Your task to perform on an android device: turn on improve location accuracy Image 0: 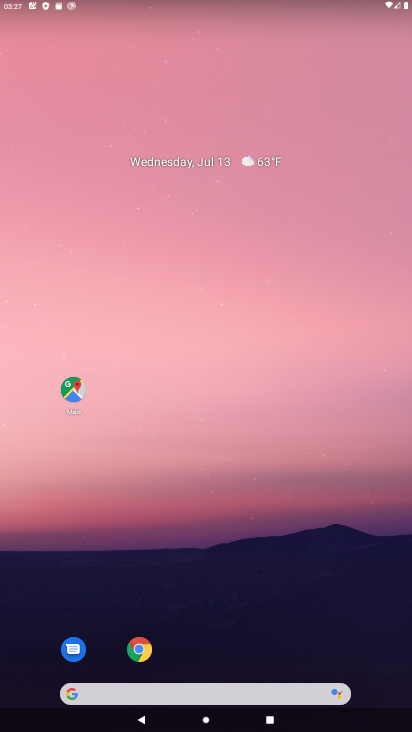
Step 0: drag from (267, 596) to (262, 54)
Your task to perform on an android device: turn on improve location accuracy Image 1: 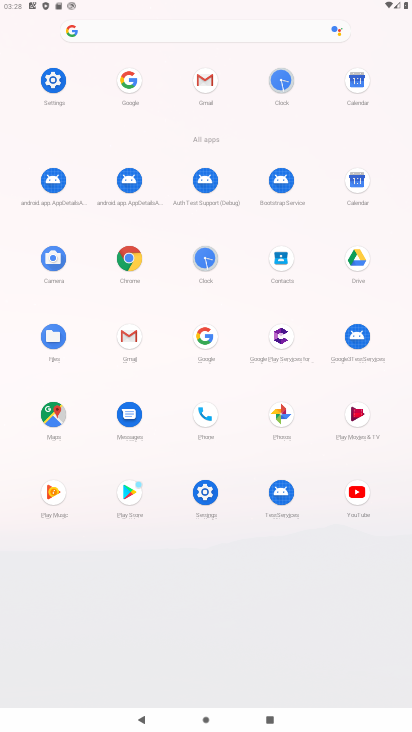
Step 1: click (50, 75)
Your task to perform on an android device: turn on improve location accuracy Image 2: 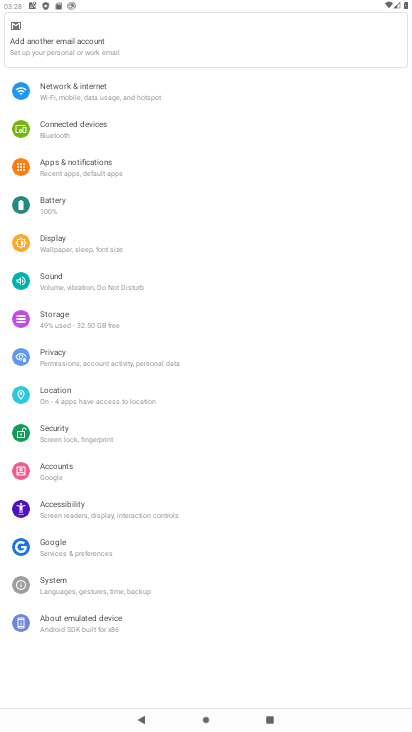
Step 2: click (43, 383)
Your task to perform on an android device: turn on improve location accuracy Image 3: 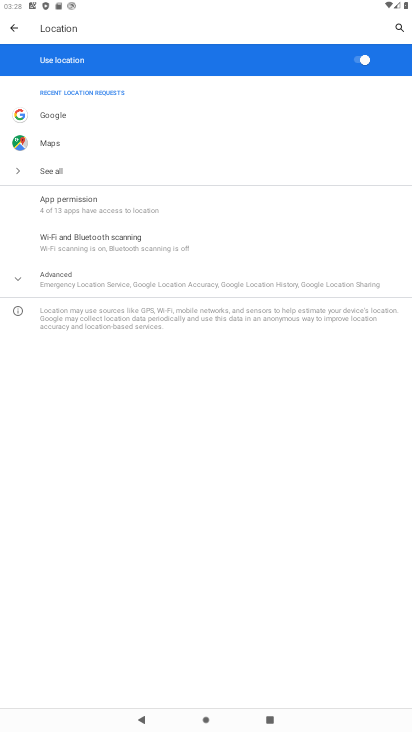
Step 3: click (42, 278)
Your task to perform on an android device: turn on improve location accuracy Image 4: 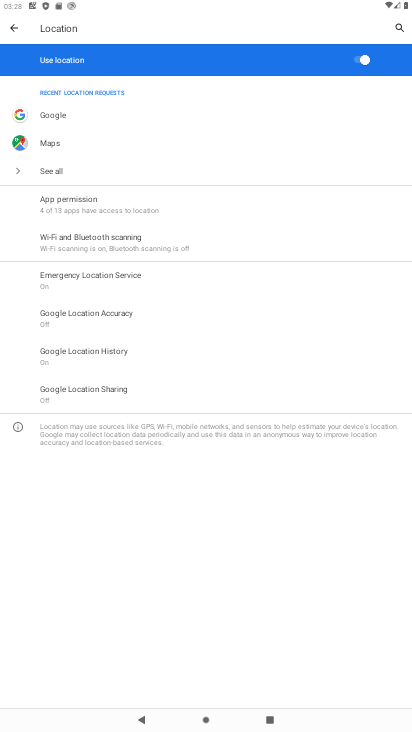
Step 4: click (72, 306)
Your task to perform on an android device: turn on improve location accuracy Image 5: 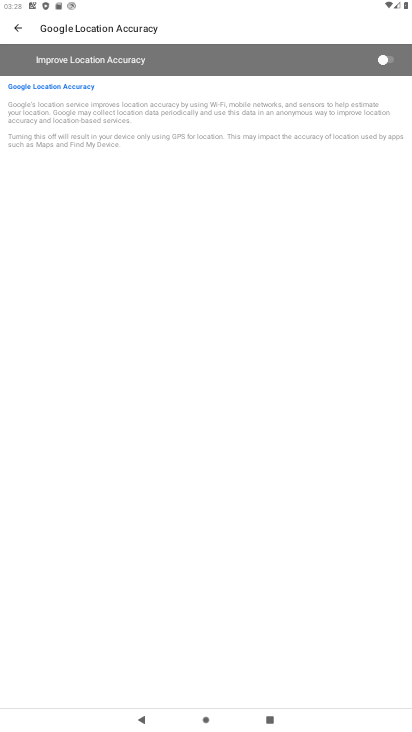
Step 5: click (389, 52)
Your task to perform on an android device: turn on improve location accuracy Image 6: 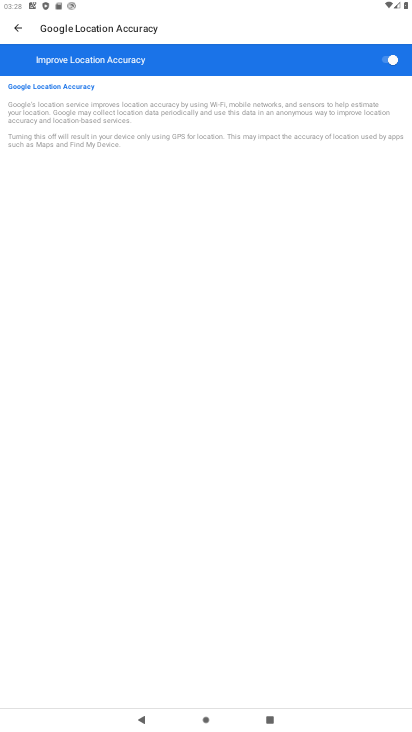
Step 6: task complete